Your task to perform on an android device: turn pop-ups on in chrome Image 0: 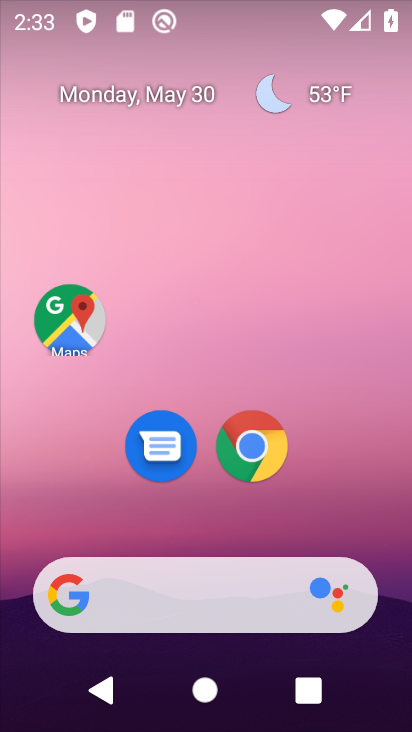
Step 0: click (254, 449)
Your task to perform on an android device: turn pop-ups on in chrome Image 1: 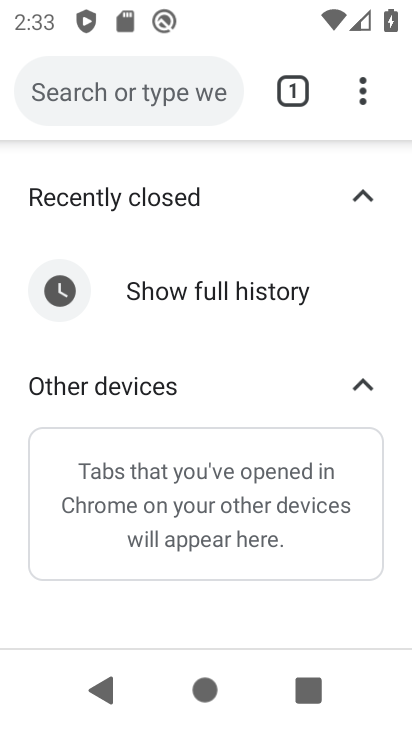
Step 1: click (364, 94)
Your task to perform on an android device: turn pop-ups on in chrome Image 2: 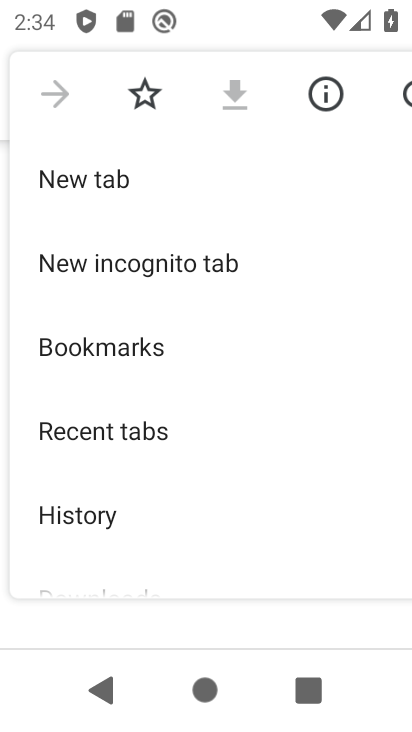
Step 2: drag from (109, 454) to (163, 330)
Your task to perform on an android device: turn pop-ups on in chrome Image 3: 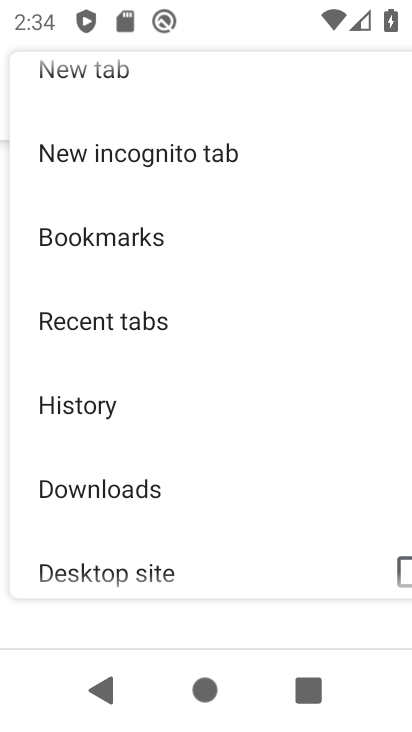
Step 3: drag from (122, 466) to (193, 360)
Your task to perform on an android device: turn pop-ups on in chrome Image 4: 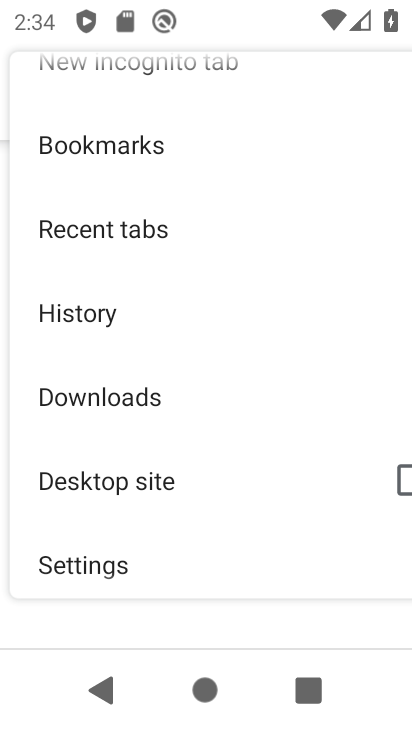
Step 4: drag from (106, 514) to (183, 410)
Your task to perform on an android device: turn pop-ups on in chrome Image 5: 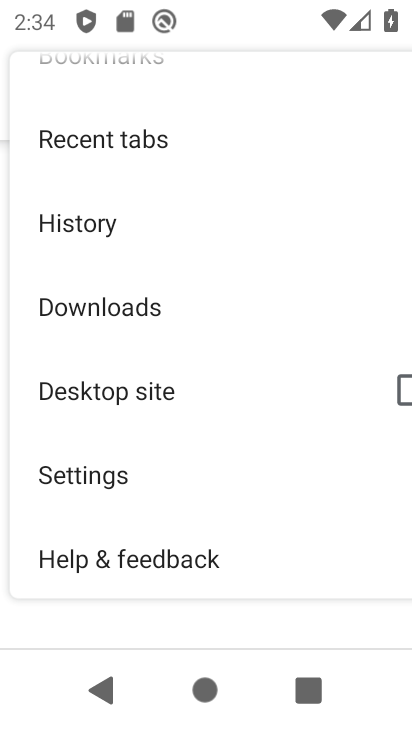
Step 5: click (113, 482)
Your task to perform on an android device: turn pop-ups on in chrome Image 6: 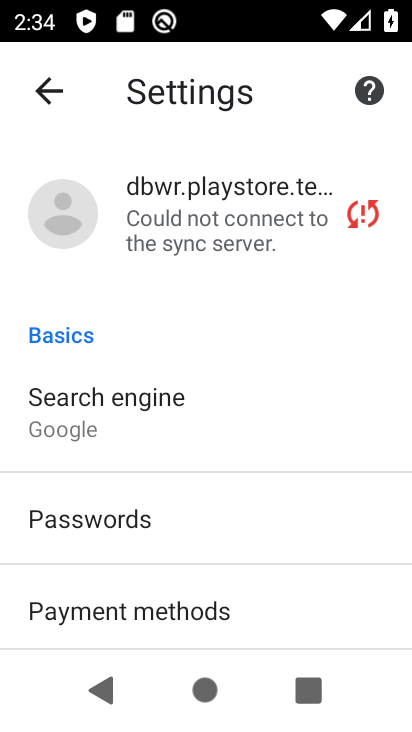
Step 6: drag from (185, 529) to (234, 412)
Your task to perform on an android device: turn pop-ups on in chrome Image 7: 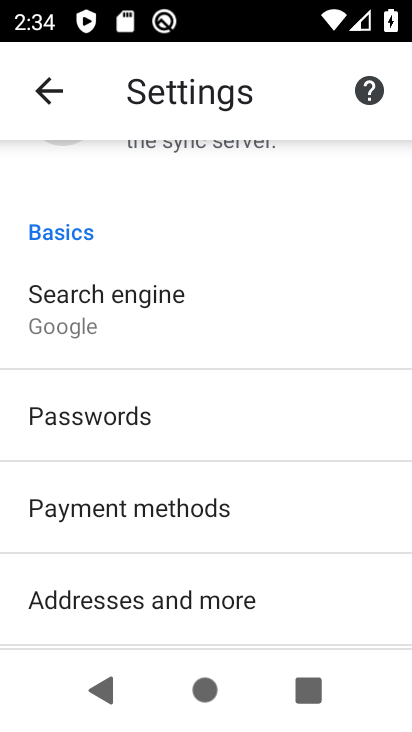
Step 7: drag from (113, 563) to (208, 431)
Your task to perform on an android device: turn pop-ups on in chrome Image 8: 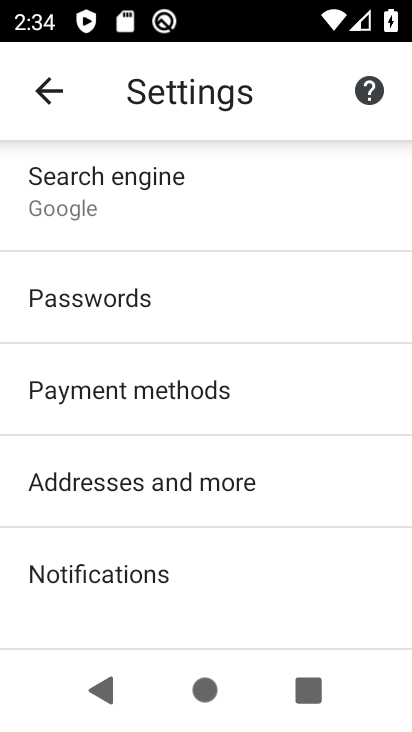
Step 8: drag from (142, 518) to (183, 457)
Your task to perform on an android device: turn pop-ups on in chrome Image 9: 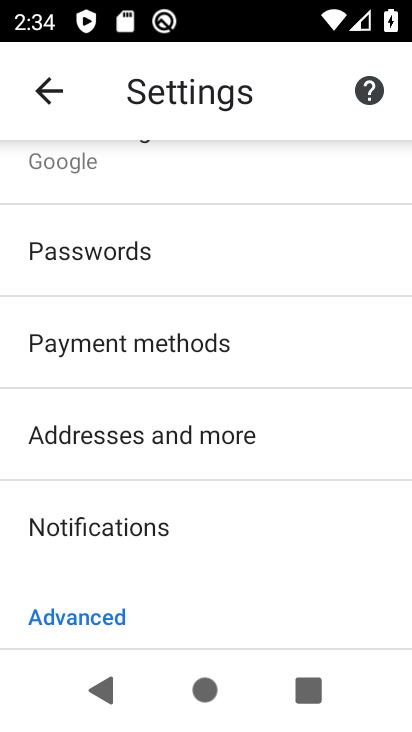
Step 9: drag from (117, 560) to (211, 464)
Your task to perform on an android device: turn pop-ups on in chrome Image 10: 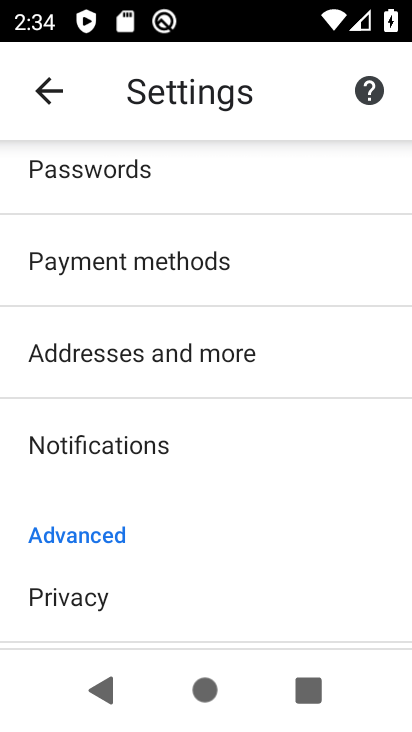
Step 10: drag from (126, 569) to (194, 477)
Your task to perform on an android device: turn pop-ups on in chrome Image 11: 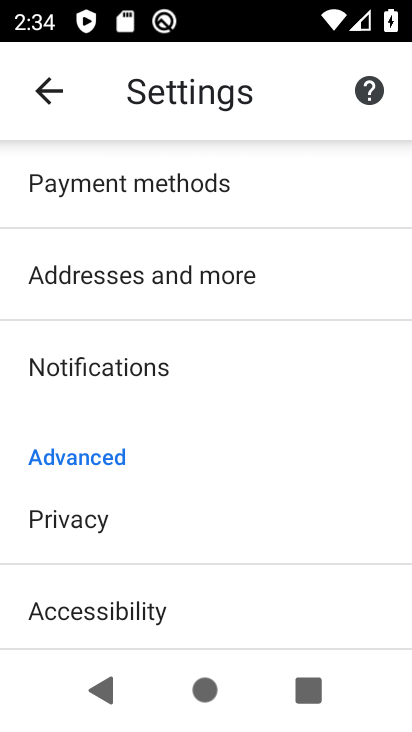
Step 11: drag from (201, 599) to (233, 514)
Your task to perform on an android device: turn pop-ups on in chrome Image 12: 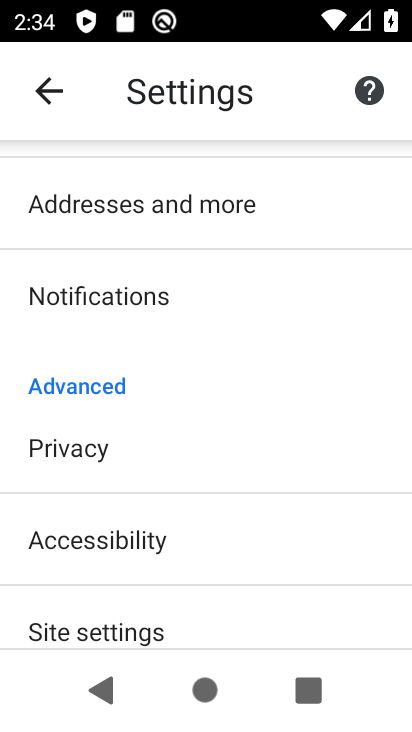
Step 12: drag from (201, 604) to (230, 480)
Your task to perform on an android device: turn pop-ups on in chrome Image 13: 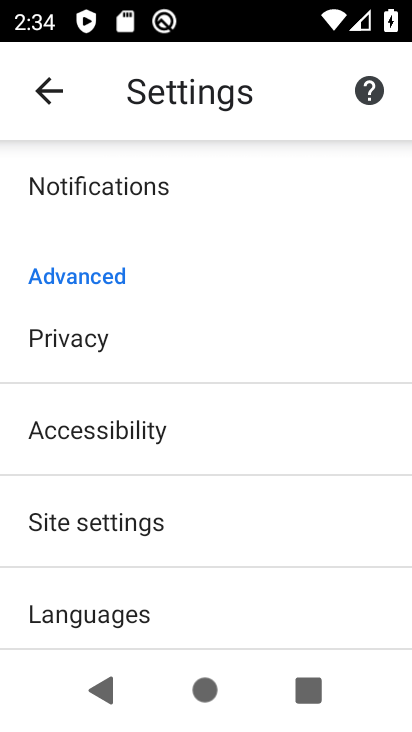
Step 13: click (142, 534)
Your task to perform on an android device: turn pop-ups on in chrome Image 14: 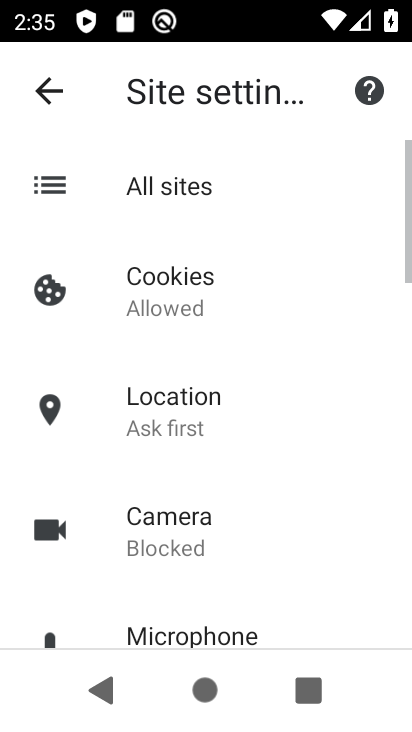
Step 14: drag from (200, 463) to (228, 358)
Your task to perform on an android device: turn pop-ups on in chrome Image 15: 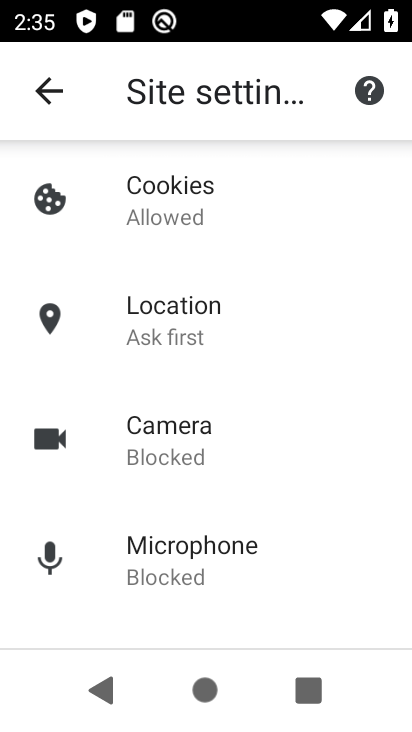
Step 15: drag from (199, 495) to (239, 412)
Your task to perform on an android device: turn pop-ups on in chrome Image 16: 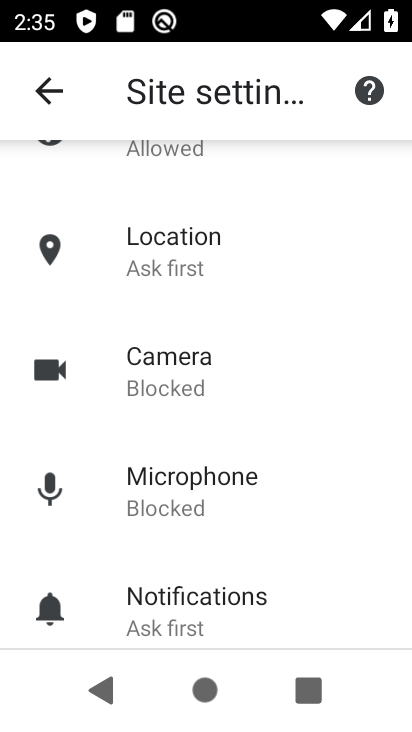
Step 16: drag from (169, 549) to (246, 447)
Your task to perform on an android device: turn pop-ups on in chrome Image 17: 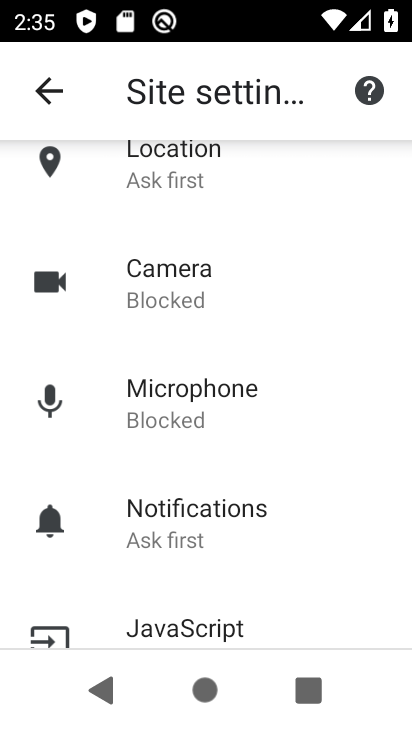
Step 17: drag from (165, 568) to (226, 475)
Your task to perform on an android device: turn pop-ups on in chrome Image 18: 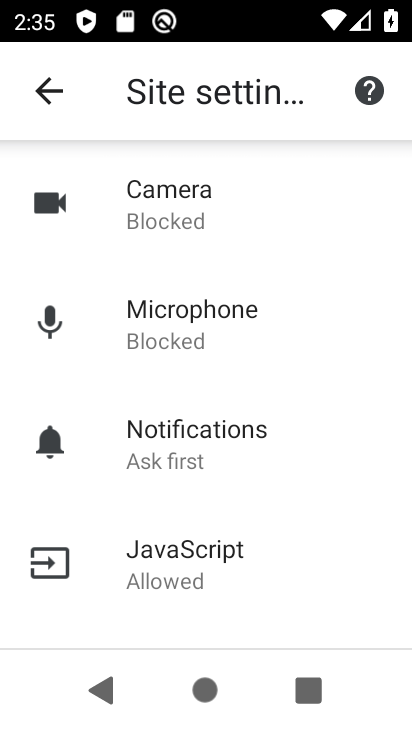
Step 18: drag from (169, 595) to (246, 493)
Your task to perform on an android device: turn pop-ups on in chrome Image 19: 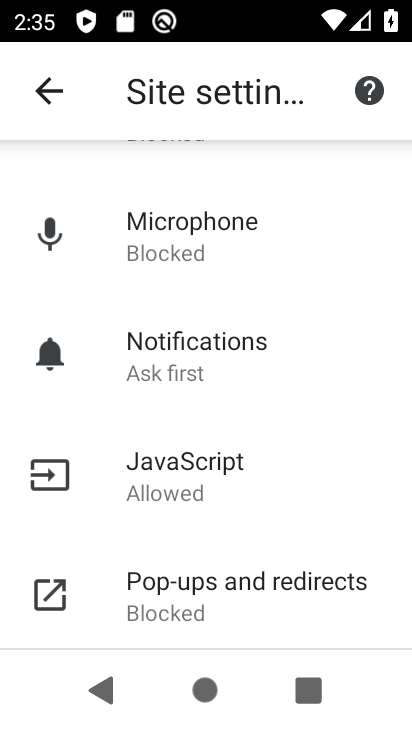
Step 19: drag from (206, 550) to (265, 451)
Your task to perform on an android device: turn pop-ups on in chrome Image 20: 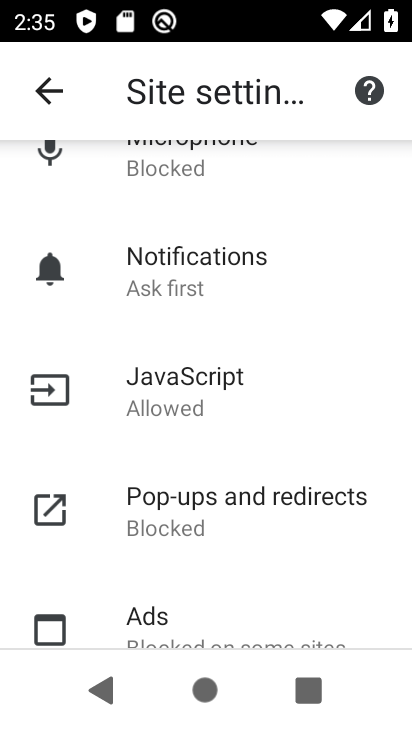
Step 20: click (261, 495)
Your task to perform on an android device: turn pop-ups on in chrome Image 21: 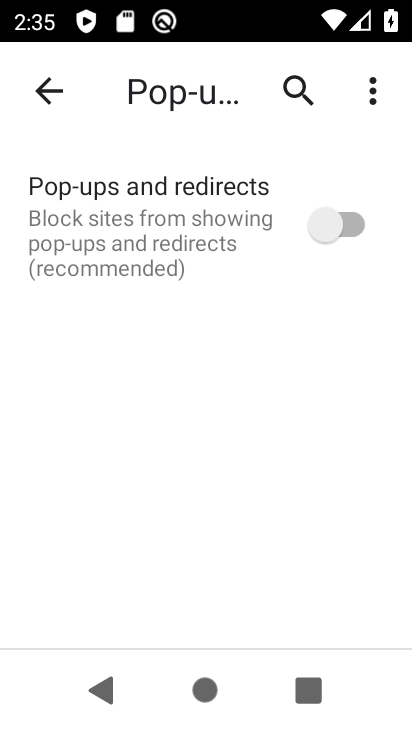
Step 21: click (325, 234)
Your task to perform on an android device: turn pop-ups on in chrome Image 22: 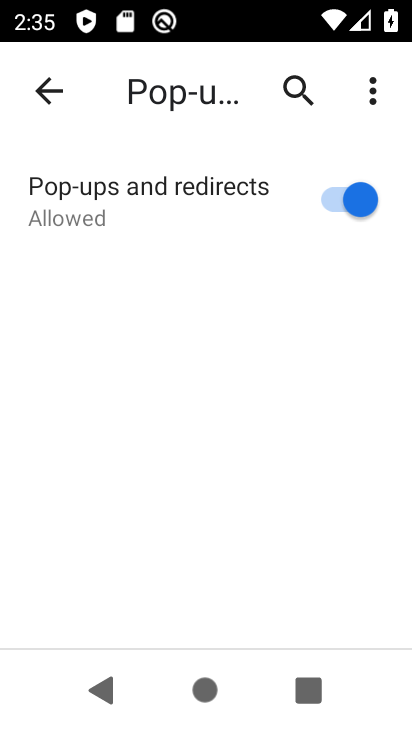
Step 22: task complete